Your task to perform on an android device: toggle show notifications on the lock screen Image 0: 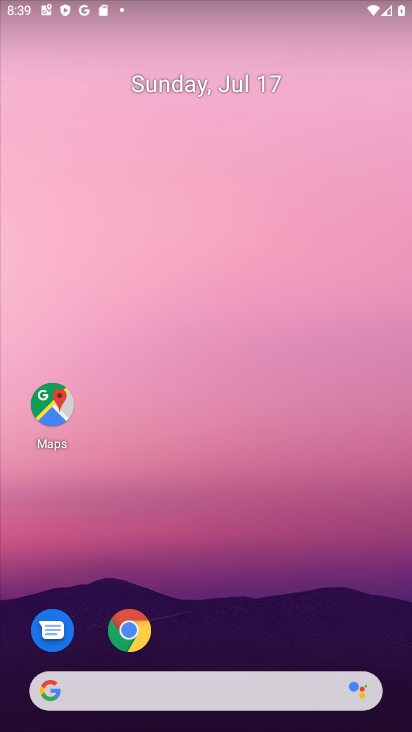
Step 0: drag from (180, 582) to (179, 148)
Your task to perform on an android device: toggle show notifications on the lock screen Image 1: 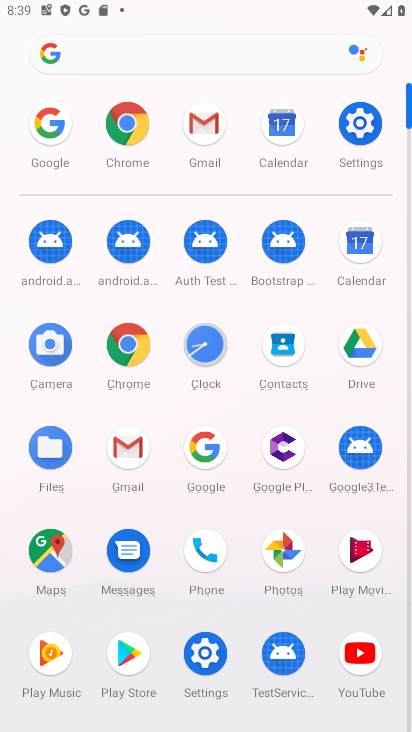
Step 1: click (357, 130)
Your task to perform on an android device: toggle show notifications on the lock screen Image 2: 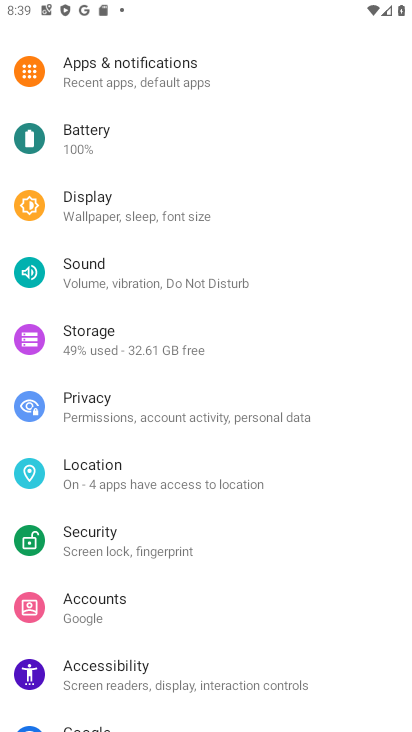
Step 2: click (177, 68)
Your task to perform on an android device: toggle show notifications on the lock screen Image 3: 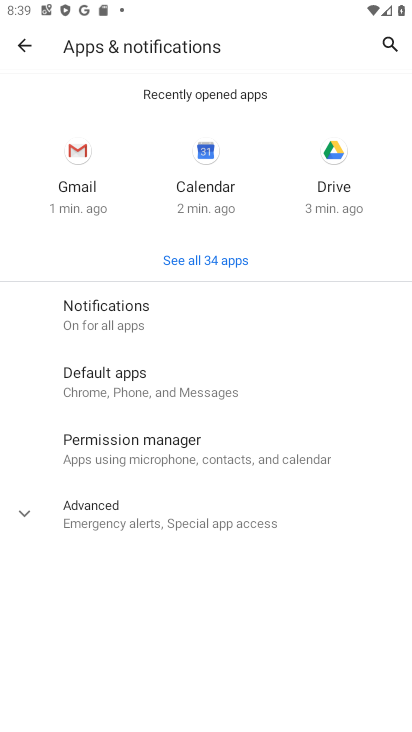
Step 3: click (128, 313)
Your task to perform on an android device: toggle show notifications on the lock screen Image 4: 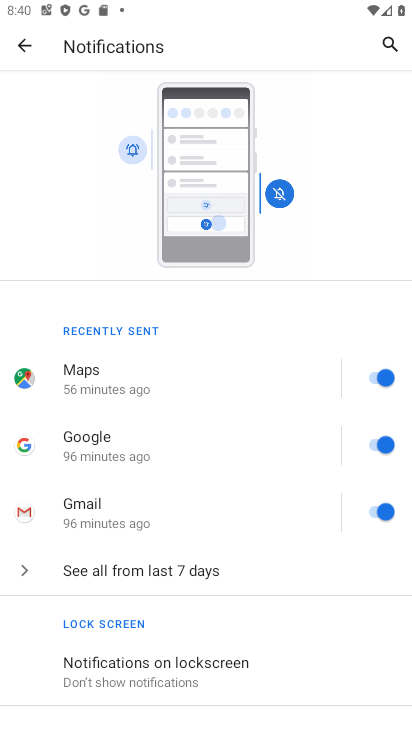
Step 4: click (206, 672)
Your task to perform on an android device: toggle show notifications on the lock screen Image 5: 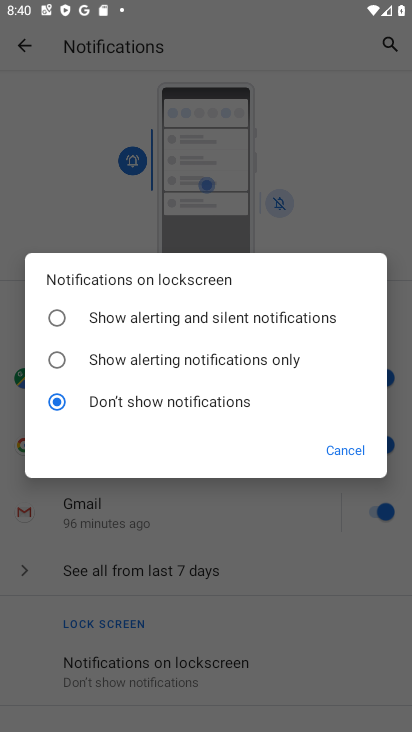
Step 5: click (57, 328)
Your task to perform on an android device: toggle show notifications on the lock screen Image 6: 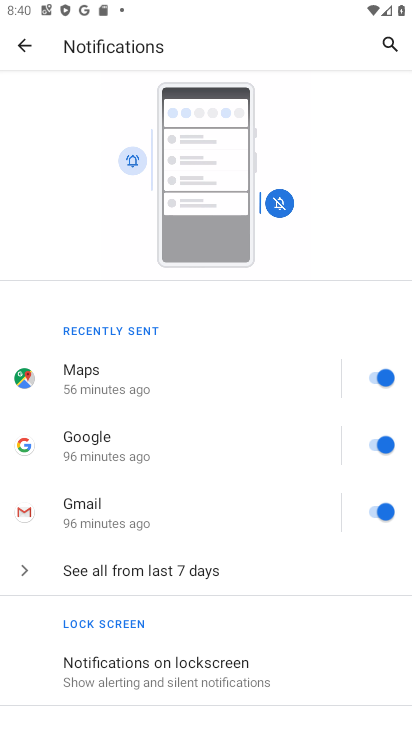
Step 6: task complete